Your task to perform on an android device: change keyboard looks Image 0: 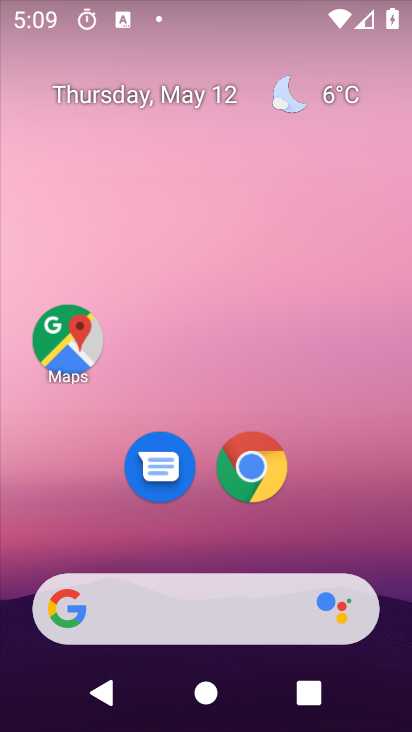
Step 0: drag from (293, 615) to (238, 14)
Your task to perform on an android device: change keyboard looks Image 1: 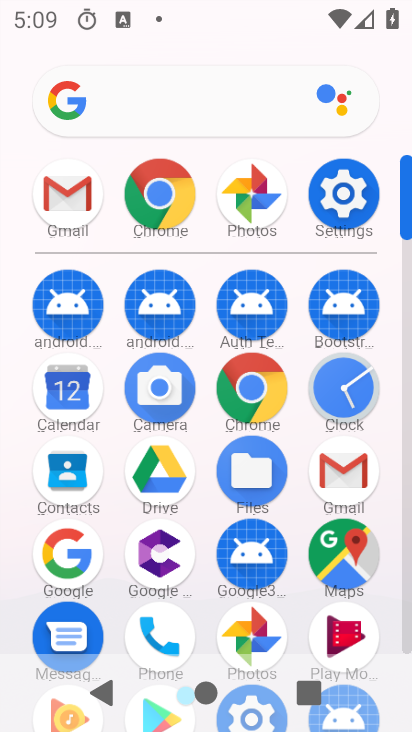
Step 1: drag from (320, 603) to (305, 231)
Your task to perform on an android device: change keyboard looks Image 2: 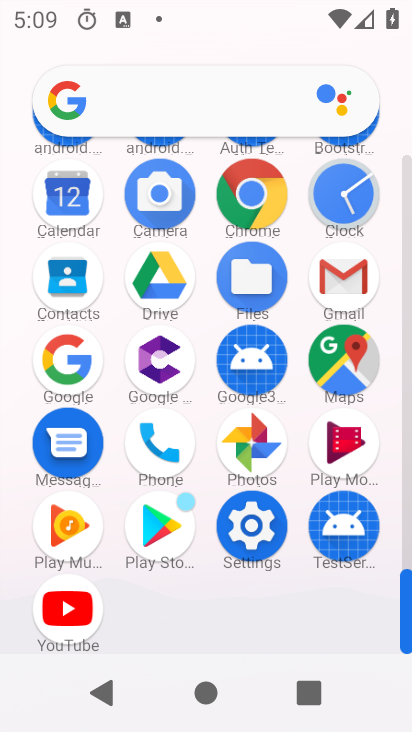
Step 2: click (252, 214)
Your task to perform on an android device: change keyboard looks Image 3: 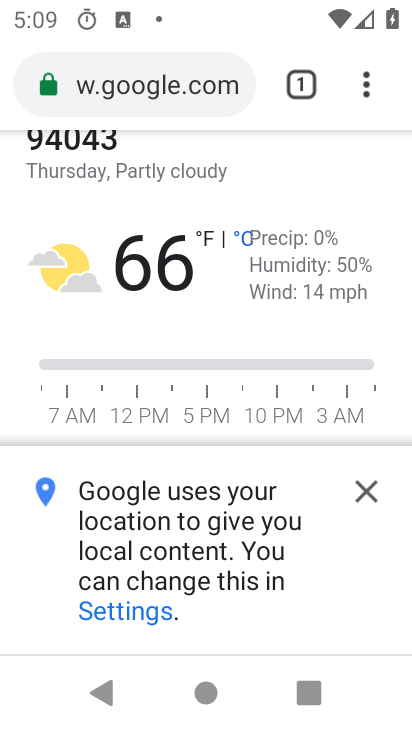
Step 3: press home button
Your task to perform on an android device: change keyboard looks Image 4: 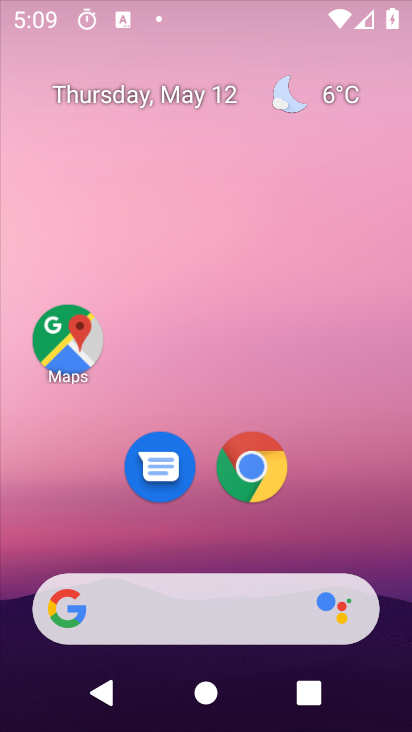
Step 4: drag from (177, 629) to (267, 10)
Your task to perform on an android device: change keyboard looks Image 5: 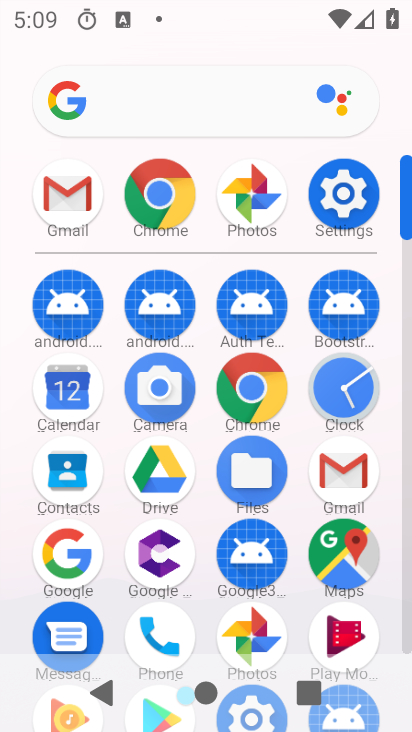
Step 5: click (344, 181)
Your task to perform on an android device: change keyboard looks Image 6: 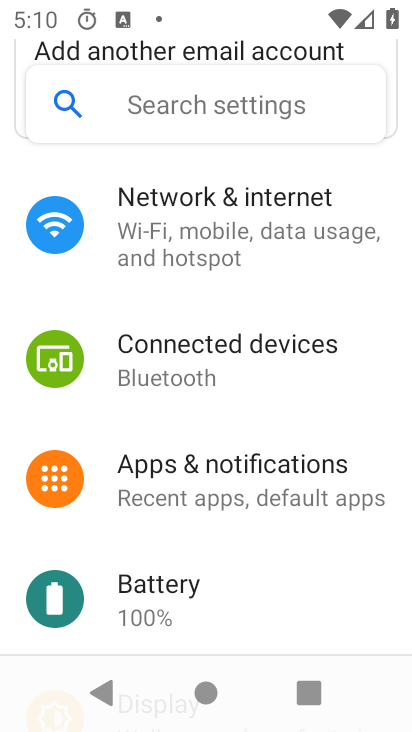
Step 6: drag from (266, 408) to (287, 175)
Your task to perform on an android device: change keyboard looks Image 7: 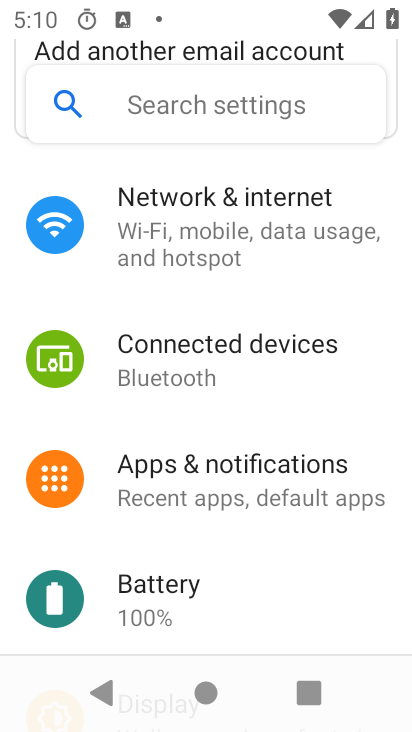
Step 7: drag from (307, 576) to (320, 205)
Your task to perform on an android device: change keyboard looks Image 8: 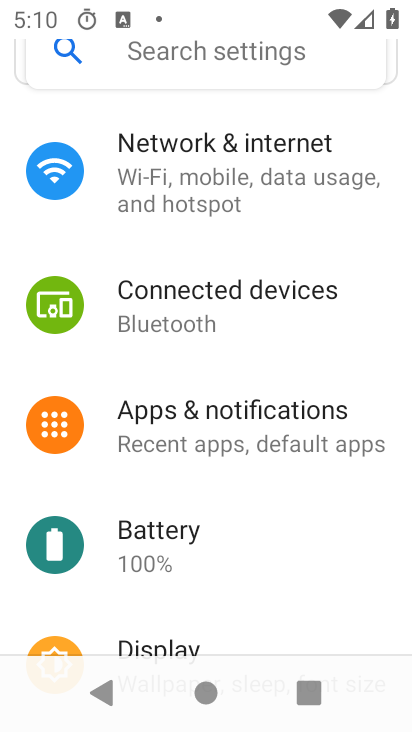
Step 8: drag from (295, 604) to (337, 70)
Your task to perform on an android device: change keyboard looks Image 9: 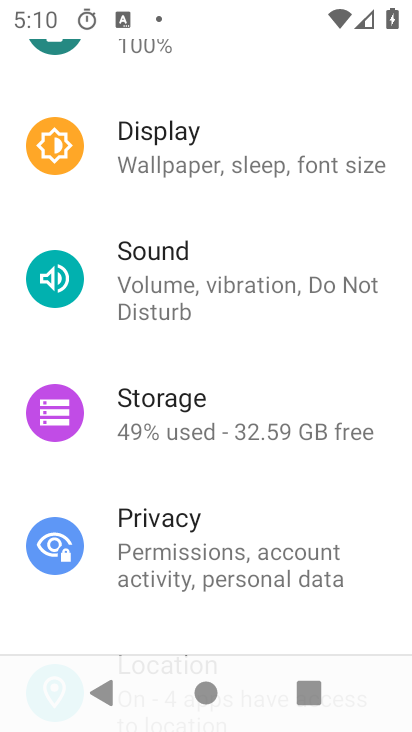
Step 9: drag from (187, 578) to (234, 28)
Your task to perform on an android device: change keyboard looks Image 10: 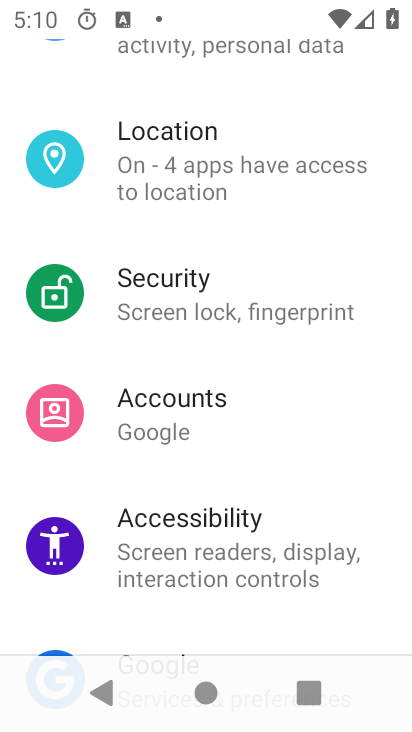
Step 10: drag from (220, 569) to (307, 201)
Your task to perform on an android device: change keyboard looks Image 11: 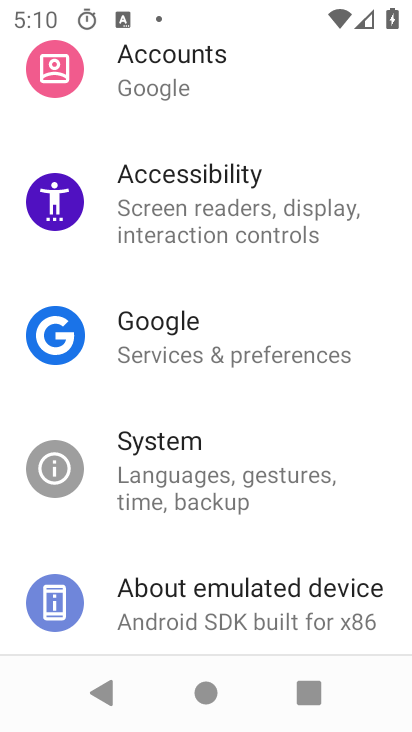
Step 11: click (208, 495)
Your task to perform on an android device: change keyboard looks Image 12: 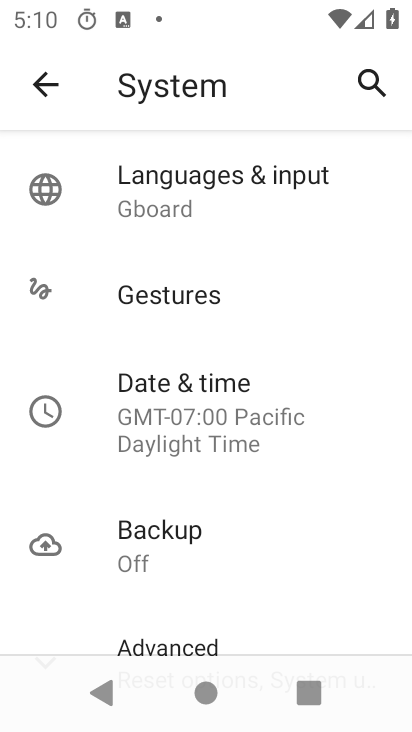
Step 12: click (242, 183)
Your task to perform on an android device: change keyboard looks Image 13: 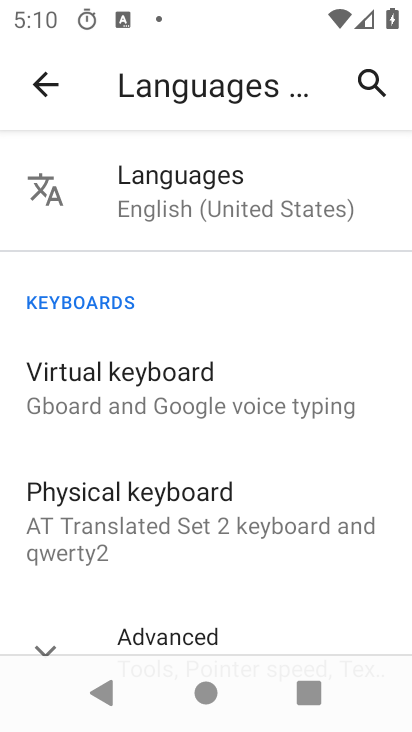
Step 13: click (189, 375)
Your task to perform on an android device: change keyboard looks Image 14: 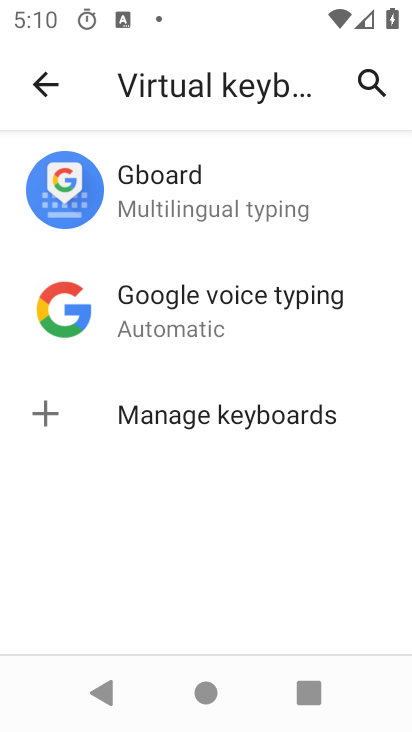
Step 14: click (234, 213)
Your task to perform on an android device: change keyboard looks Image 15: 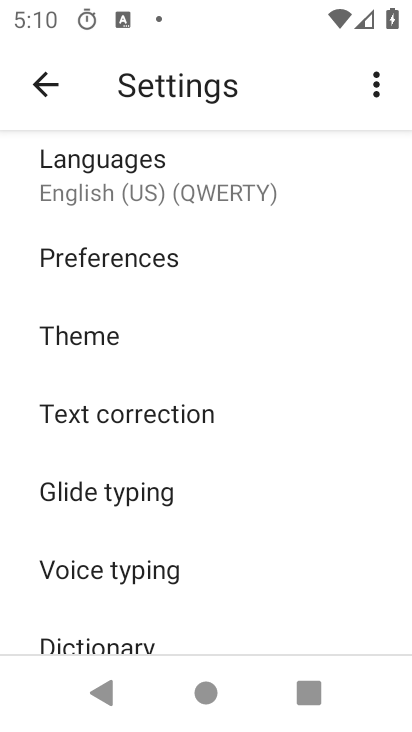
Step 15: drag from (158, 579) to (200, 253)
Your task to perform on an android device: change keyboard looks Image 16: 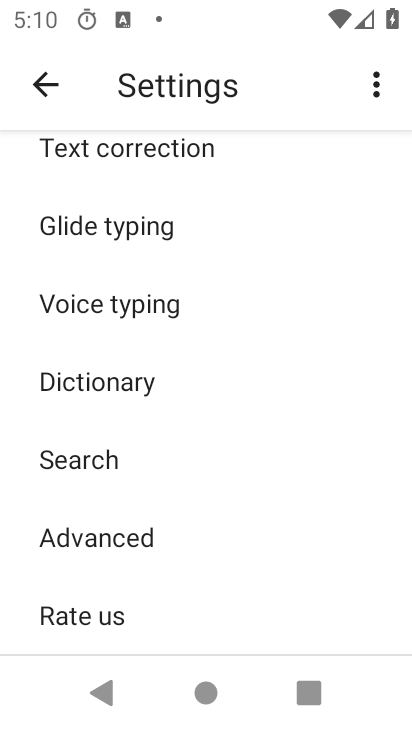
Step 16: drag from (188, 209) to (224, 720)
Your task to perform on an android device: change keyboard looks Image 17: 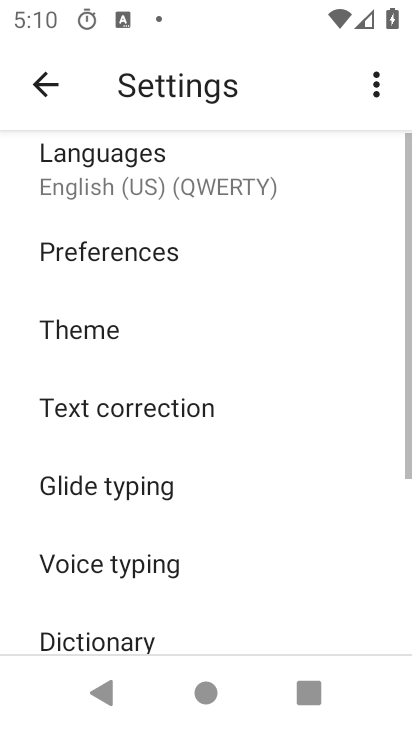
Step 17: click (151, 337)
Your task to perform on an android device: change keyboard looks Image 18: 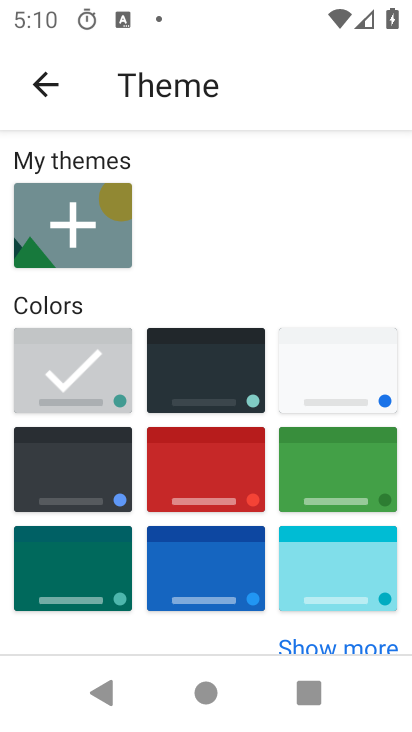
Step 18: click (221, 470)
Your task to perform on an android device: change keyboard looks Image 19: 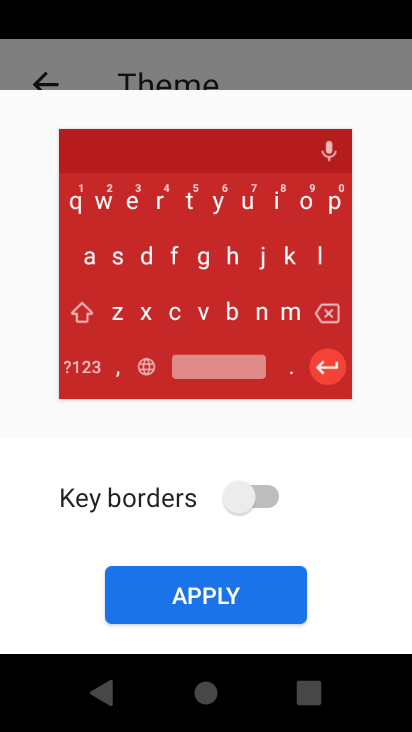
Step 19: click (183, 583)
Your task to perform on an android device: change keyboard looks Image 20: 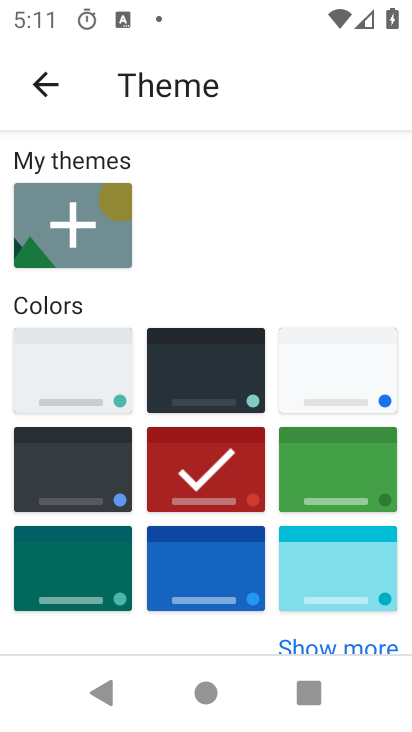
Step 20: task complete